Your task to perform on an android device: Go to Reddit.com Image 0: 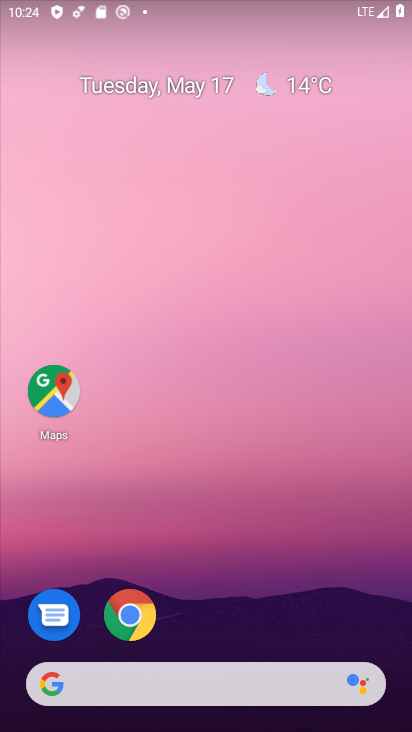
Step 0: click (133, 619)
Your task to perform on an android device: Go to Reddit.com Image 1: 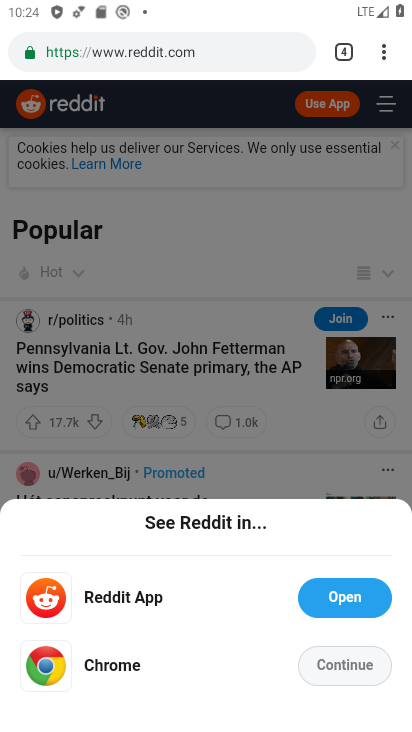
Step 1: task complete